Your task to perform on an android device: Open calendar and show me the third week of next month Image 0: 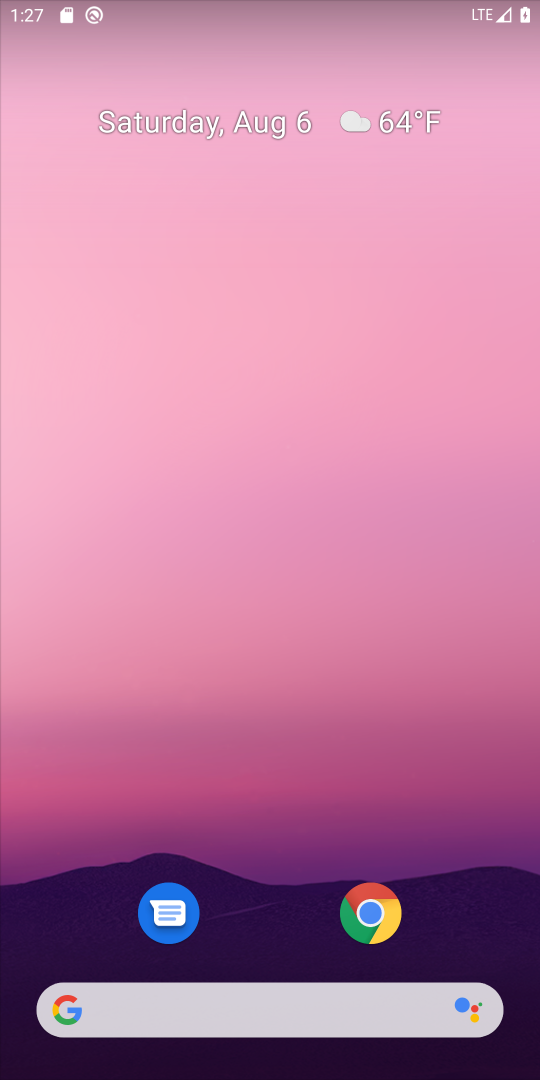
Step 0: press home button
Your task to perform on an android device: Open calendar and show me the third week of next month Image 1: 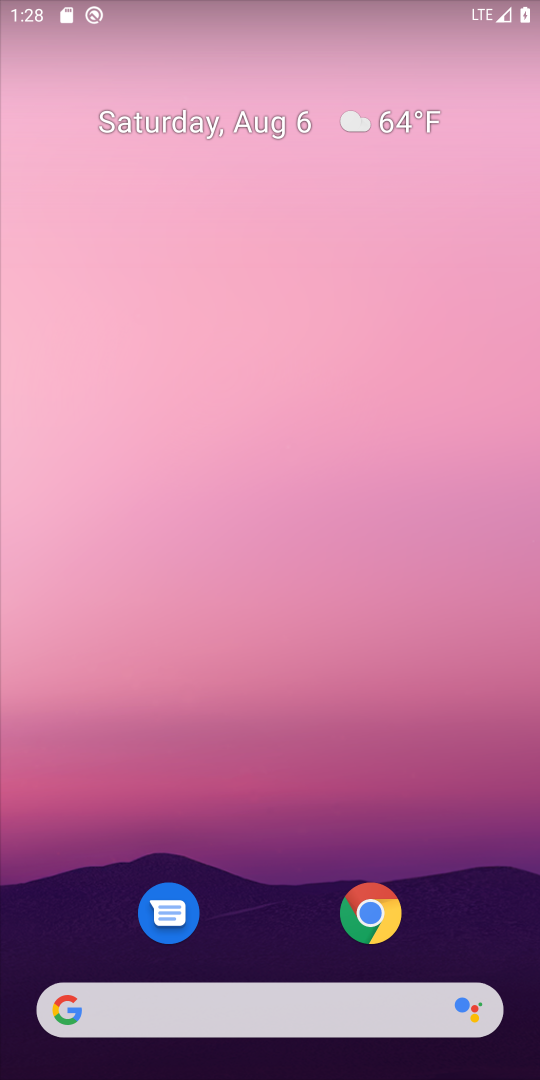
Step 1: drag from (440, 805) to (452, 362)
Your task to perform on an android device: Open calendar and show me the third week of next month Image 2: 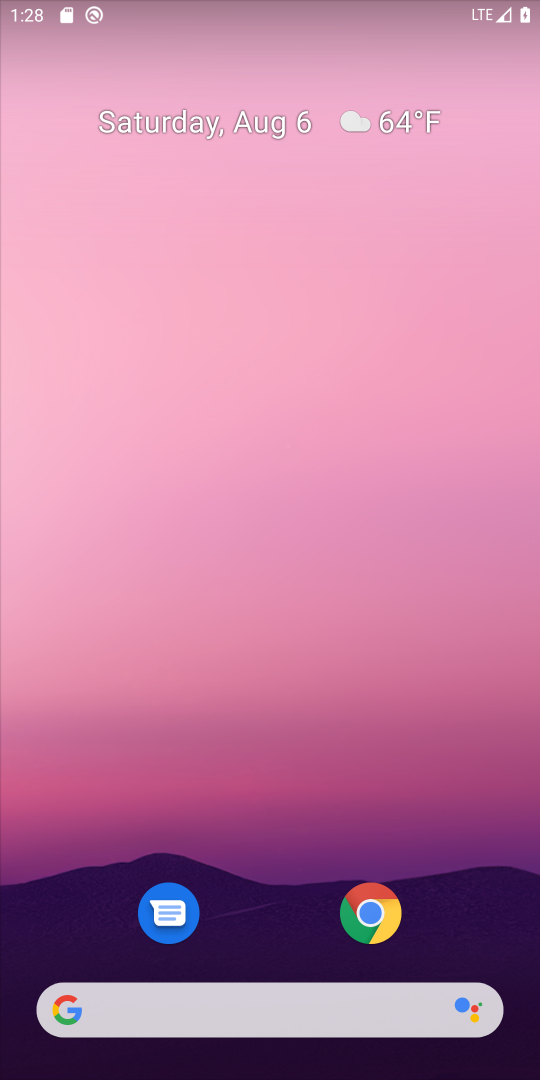
Step 2: drag from (450, 894) to (464, 140)
Your task to perform on an android device: Open calendar and show me the third week of next month Image 3: 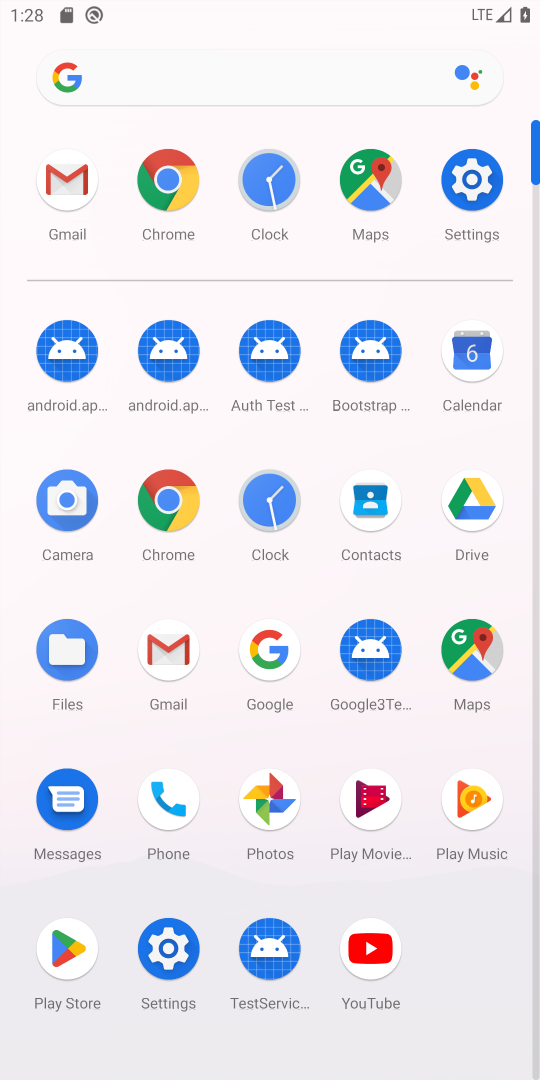
Step 3: click (464, 371)
Your task to perform on an android device: Open calendar and show me the third week of next month Image 4: 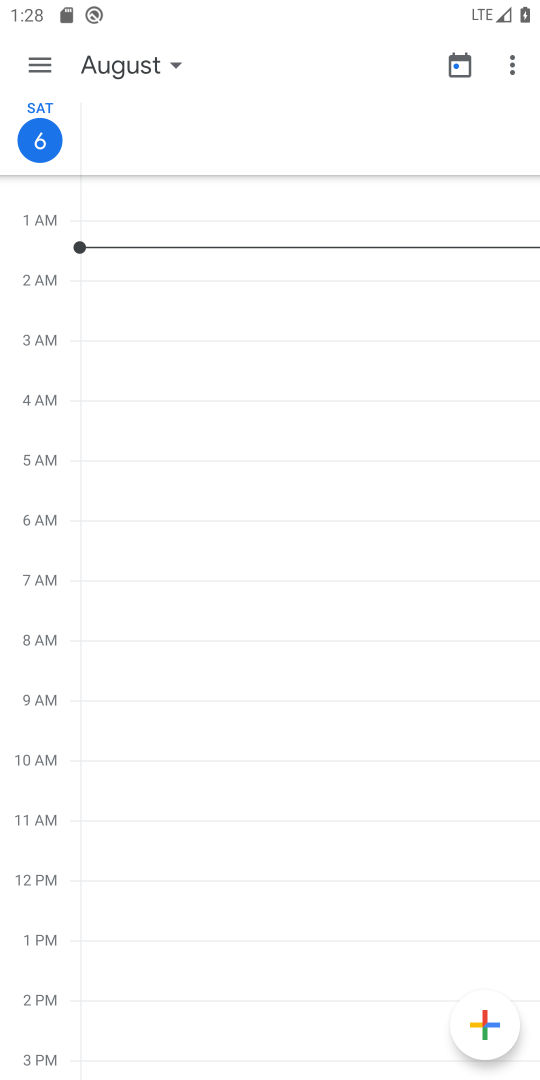
Step 4: click (32, 65)
Your task to perform on an android device: Open calendar and show me the third week of next month Image 5: 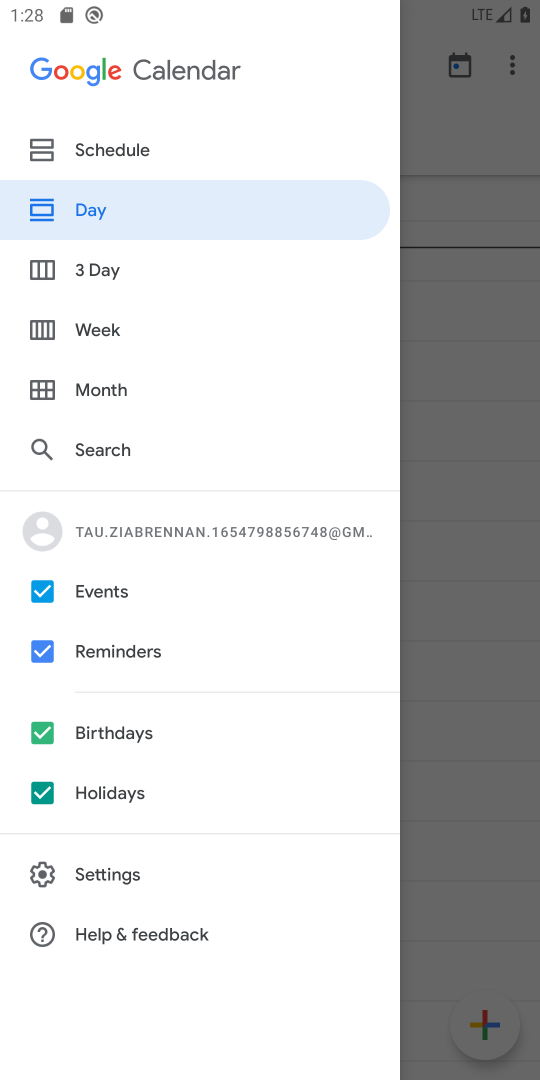
Step 5: click (113, 147)
Your task to perform on an android device: Open calendar and show me the third week of next month Image 6: 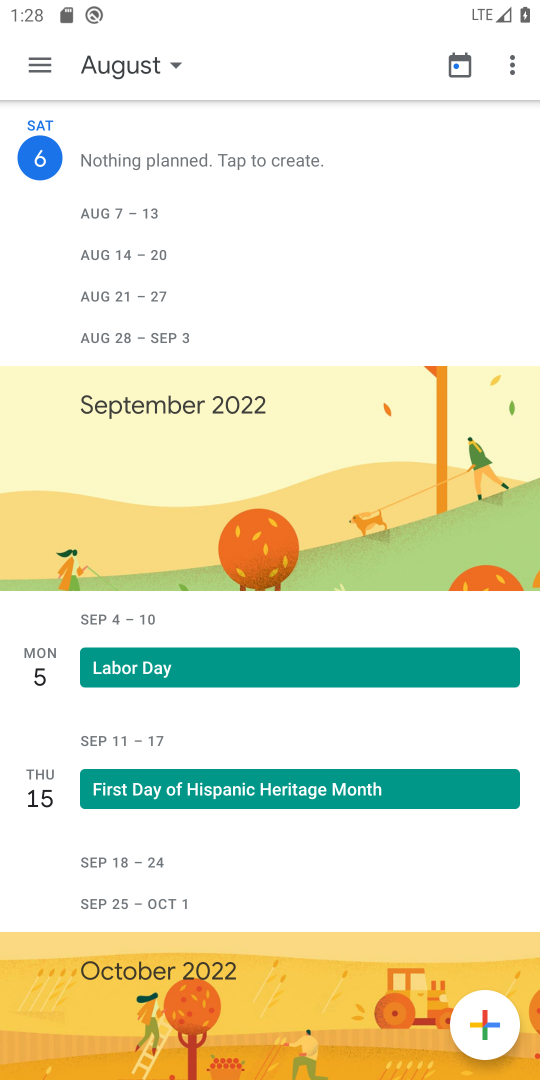
Step 6: click (169, 67)
Your task to perform on an android device: Open calendar and show me the third week of next month Image 7: 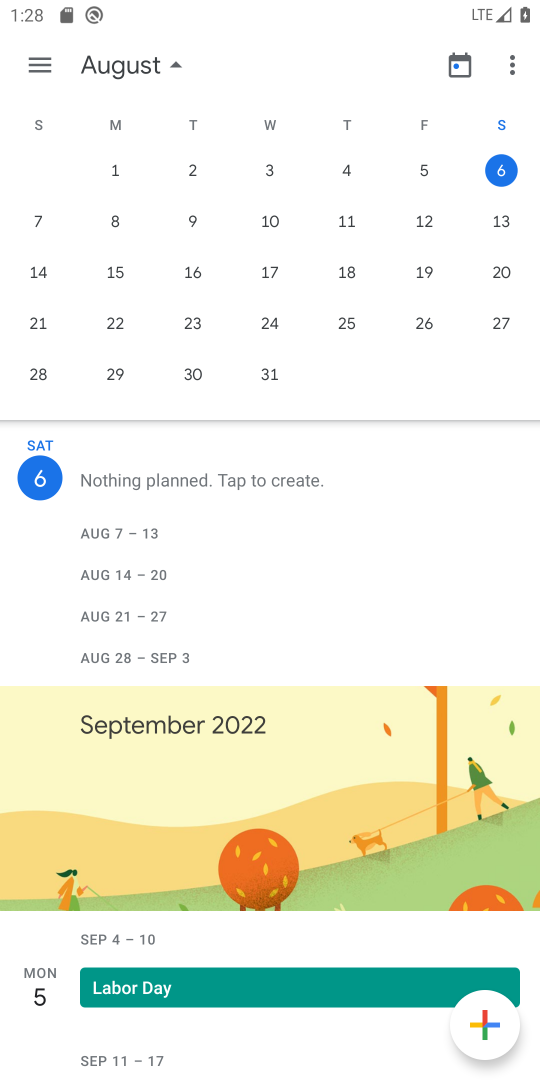
Step 7: drag from (490, 234) to (55, 231)
Your task to perform on an android device: Open calendar and show me the third week of next month Image 8: 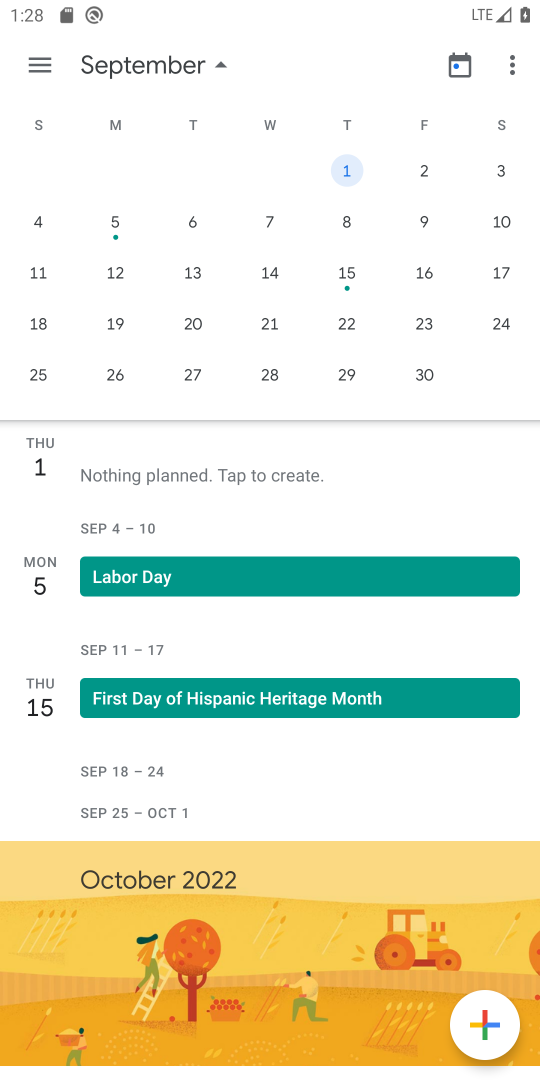
Step 8: click (113, 268)
Your task to perform on an android device: Open calendar and show me the third week of next month Image 9: 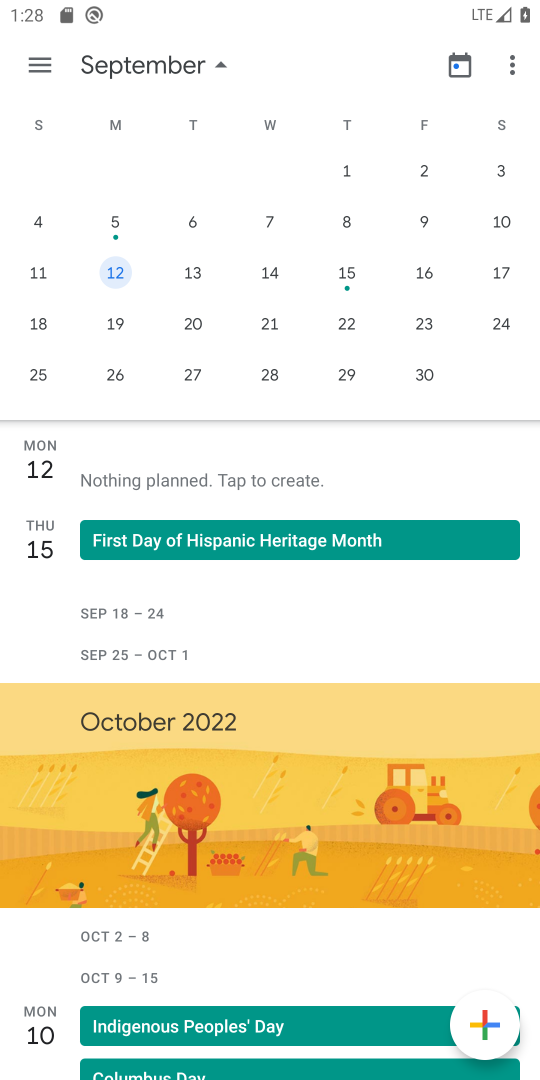
Step 9: task complete